Your task to perform on an android device: open a new tab in the chrome app Image 0: 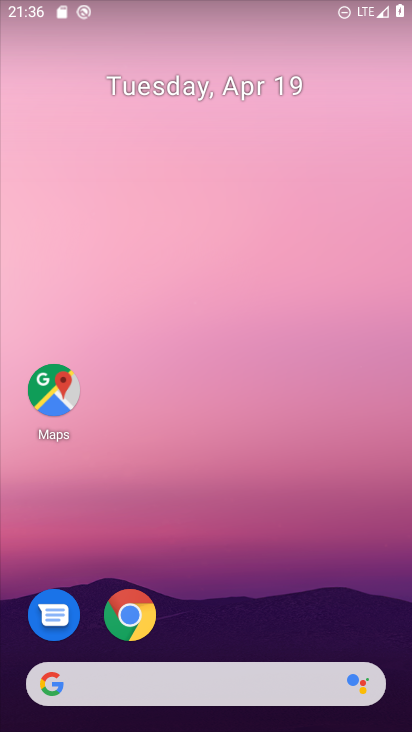
Step 0: click (132, 617)
Your task to perform on an android device: open a new tab in the chrome app Image 1: 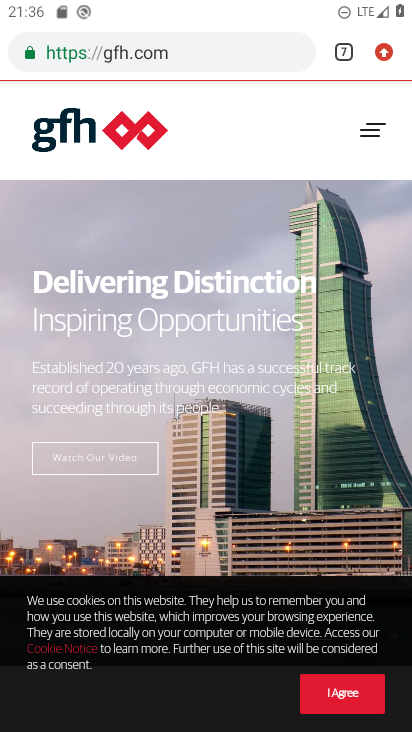
Step 1: click (343, 56)
Your task to perform on an android device: open a new tab in the chrome app Image 2: 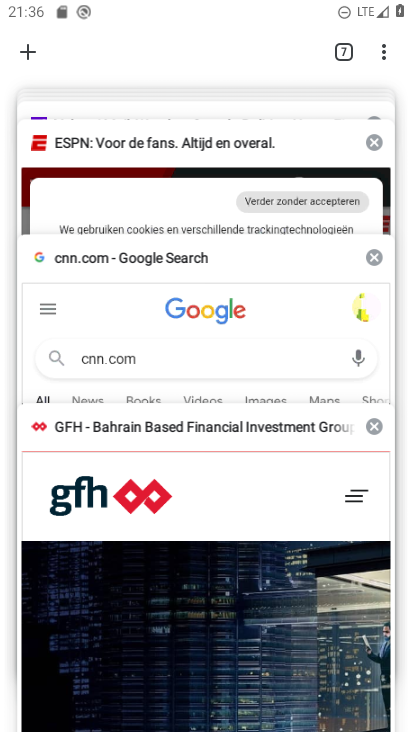
Step 2: click (31, 58)
Your task to perform on an android device: open a new tab in the chrome app Image 3: 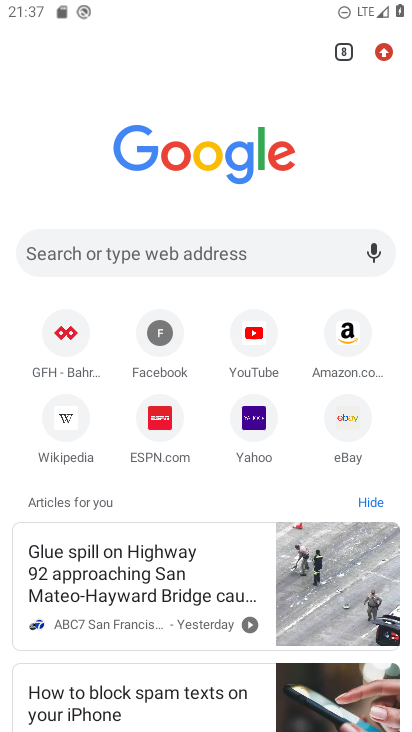
Step 3: task complete